Your task to perform on an android device: Open location settings Image 0: 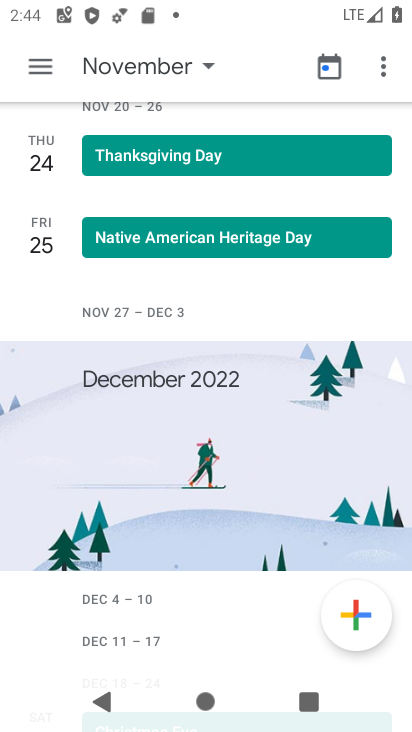
Step 0: press home button
Your task to perform on an android device: Open location settings Image 1: 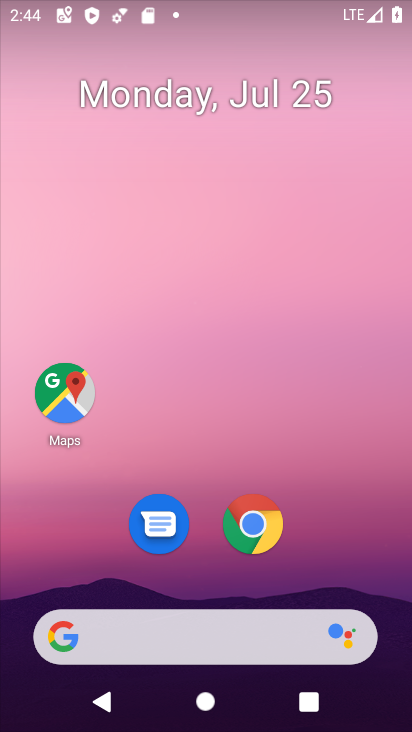
Step 1: drag from (318, 583) to (310, 9)
Your task to perform on an android device: Open location settings Image 2: 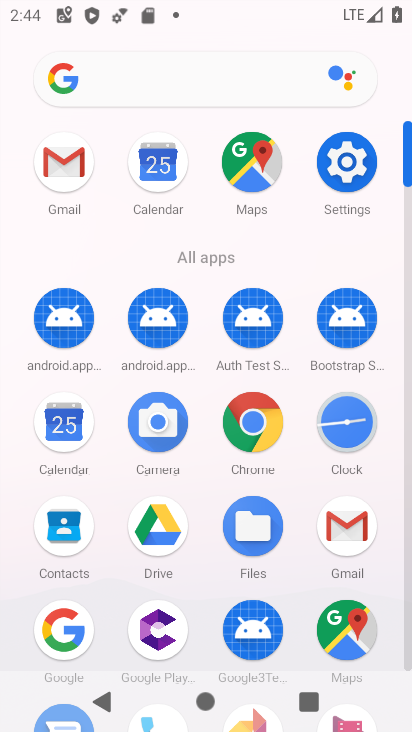
Step 2: click (345, 170)
Your task to perform on an android device: Open location settings Image 3: 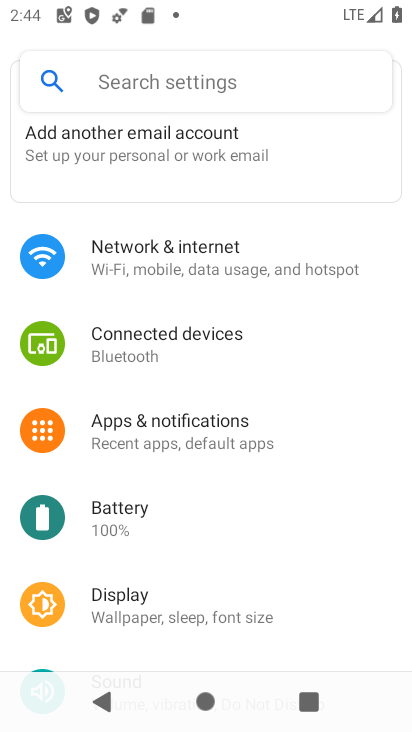
Step 3: drag from (199, 554) to (284, 272)
Your task to perform on an android device: Open location settings Image 4: 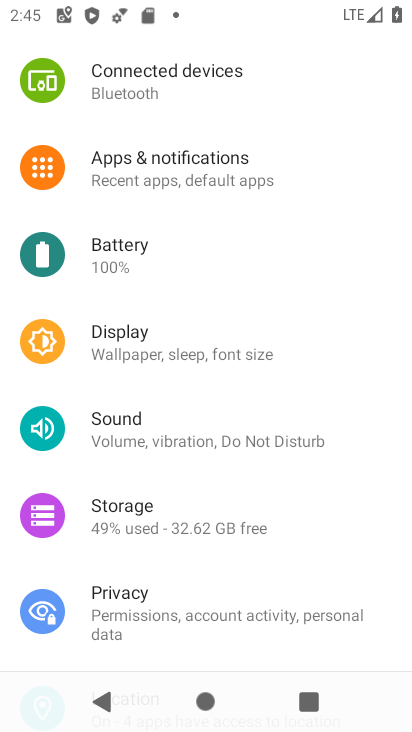
Step 4: drag from (251, 467) to (284, 161)
Your task to perform on an android device: Open location settings Image 5: 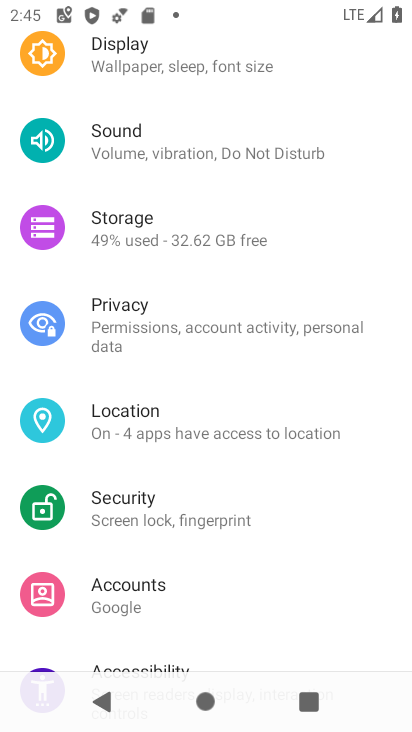
Step 5: click (211, 429)
Your task to perform on an android device: Open location settings Image 6: 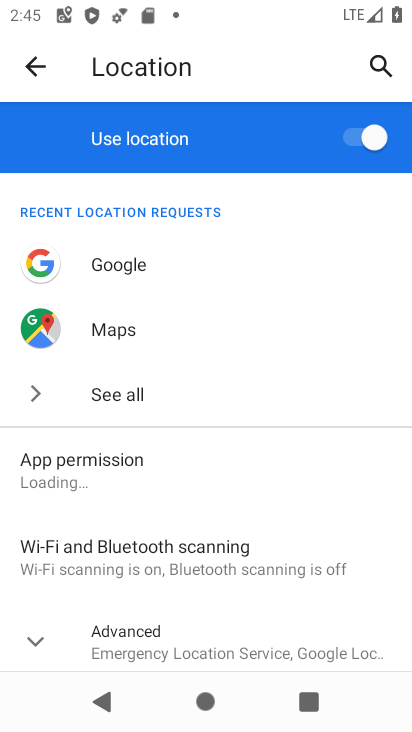
Step 6: task complete